Your task to perform on an android device: Go to settings Image 0: 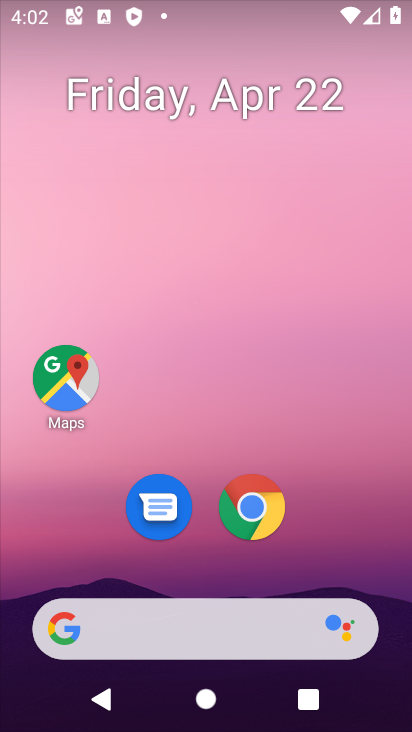
Step 0: drag from (305, 535) to (284, 65)
Your task to perform on an android device: Go to settings Image 1: 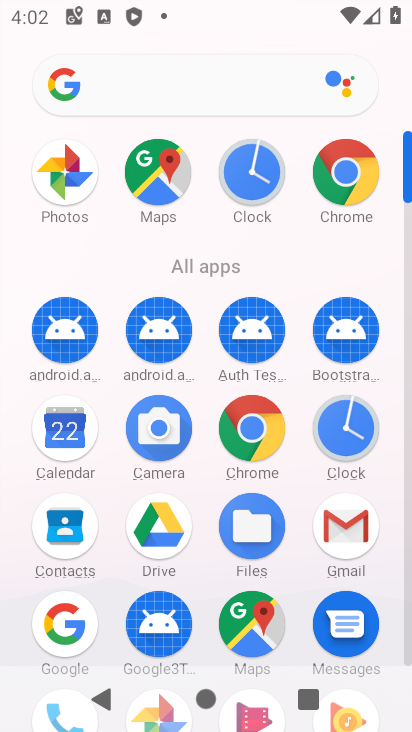
Step 1: drag from (202, 557) to (207, 191)
Your task to perform on an android device: Go to settings Image 2: 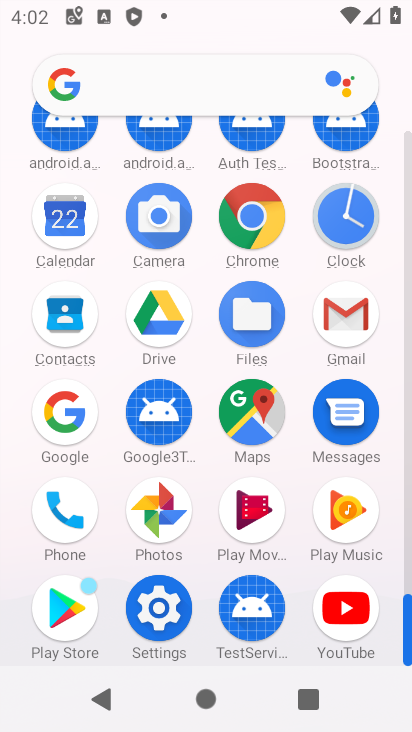
Step 2: click (170, 608)
Your task to perform on an android device: Go to settings Image 3: 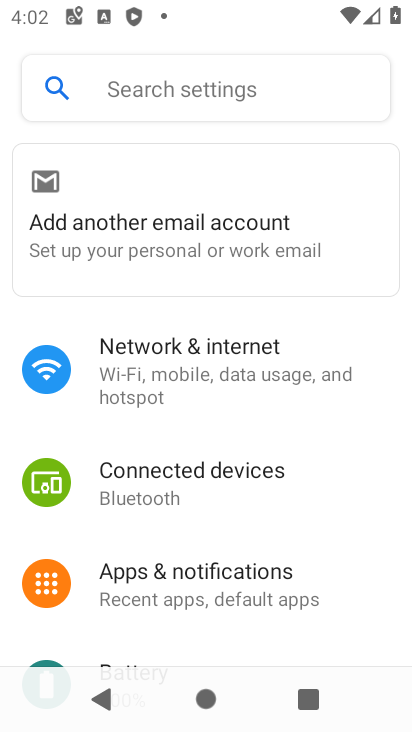
Step 3: task complete